Your task to perform on an android device: Clear all items from cart on costco. Search for "sony triple a" on costco, select the first entry, and add it to the cart. Image 0: 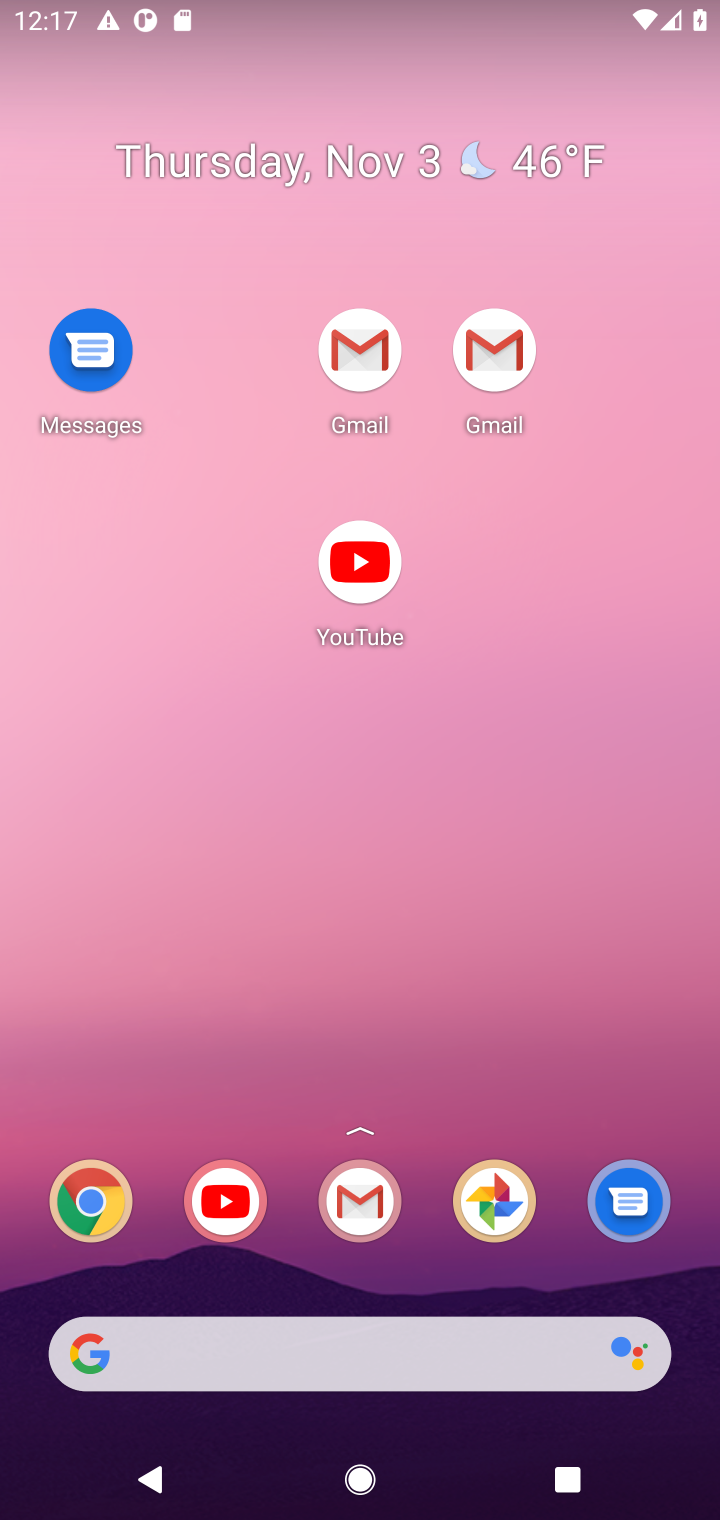
Step 0: drag from (357, 1061) to (402, 173)
Your task to perform on an android device: Clear all items from cart on costco. Search for "sony triple a" on costco, select the first entry, and add it to the cart. Image 1: 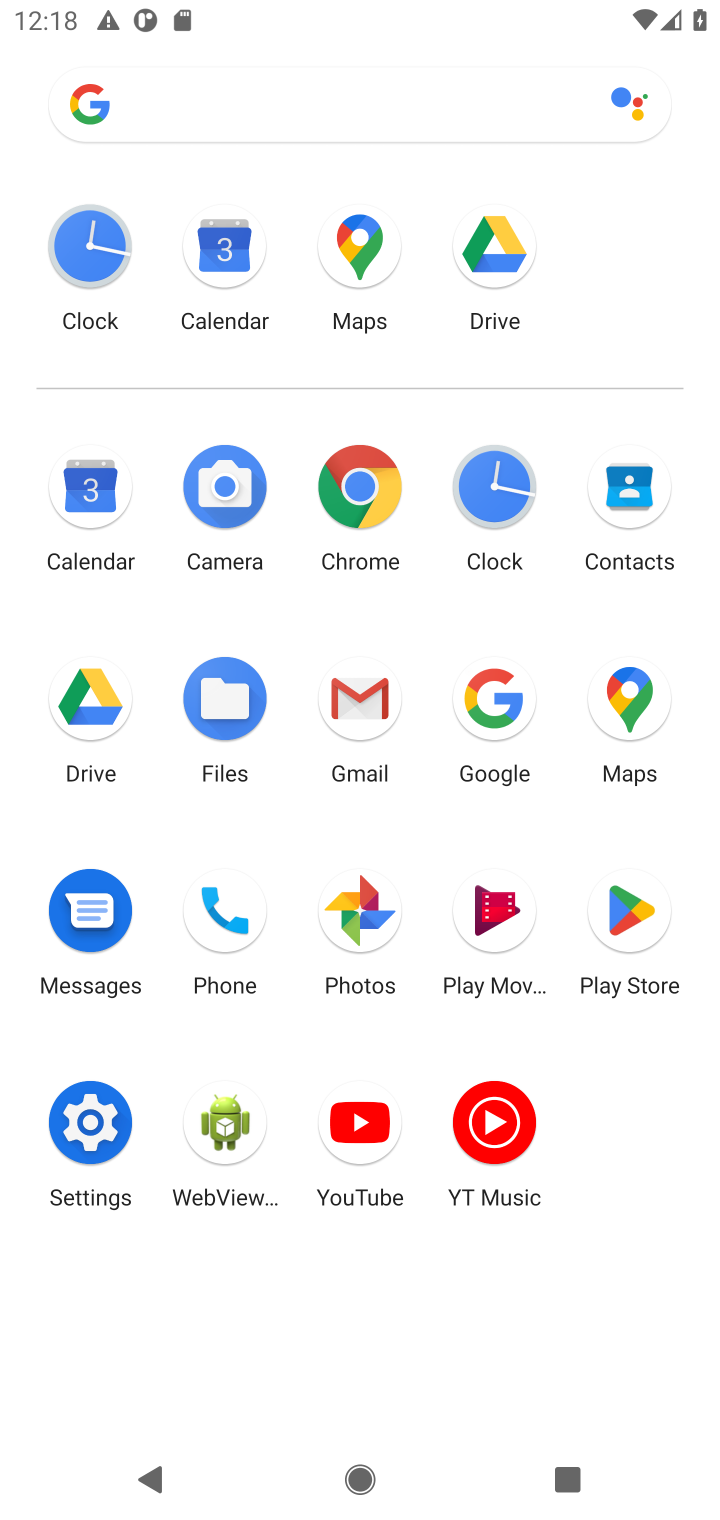
Step 1: click (365, 486)
Your task to perform on an android device: Clear all items from cart on costco. Search for "sony triple a" on costco, select the first entry, and add it to the cart. Image 2: 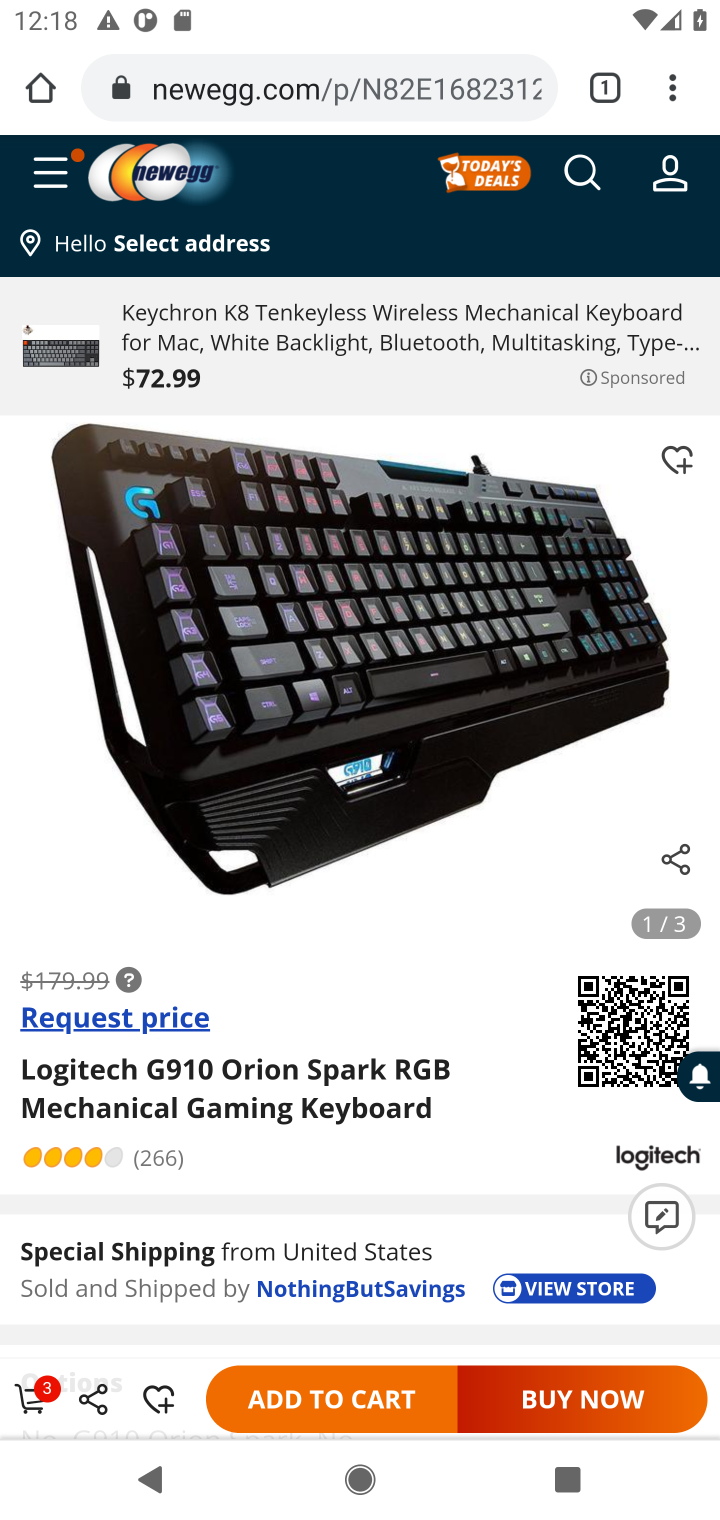
Step 2: click (375, 87)
Your task to perform on an android device: Clear all items from cart on costco. Search for "sony triple a" on costco, select the first entry, and add it to the cart. Image 3: 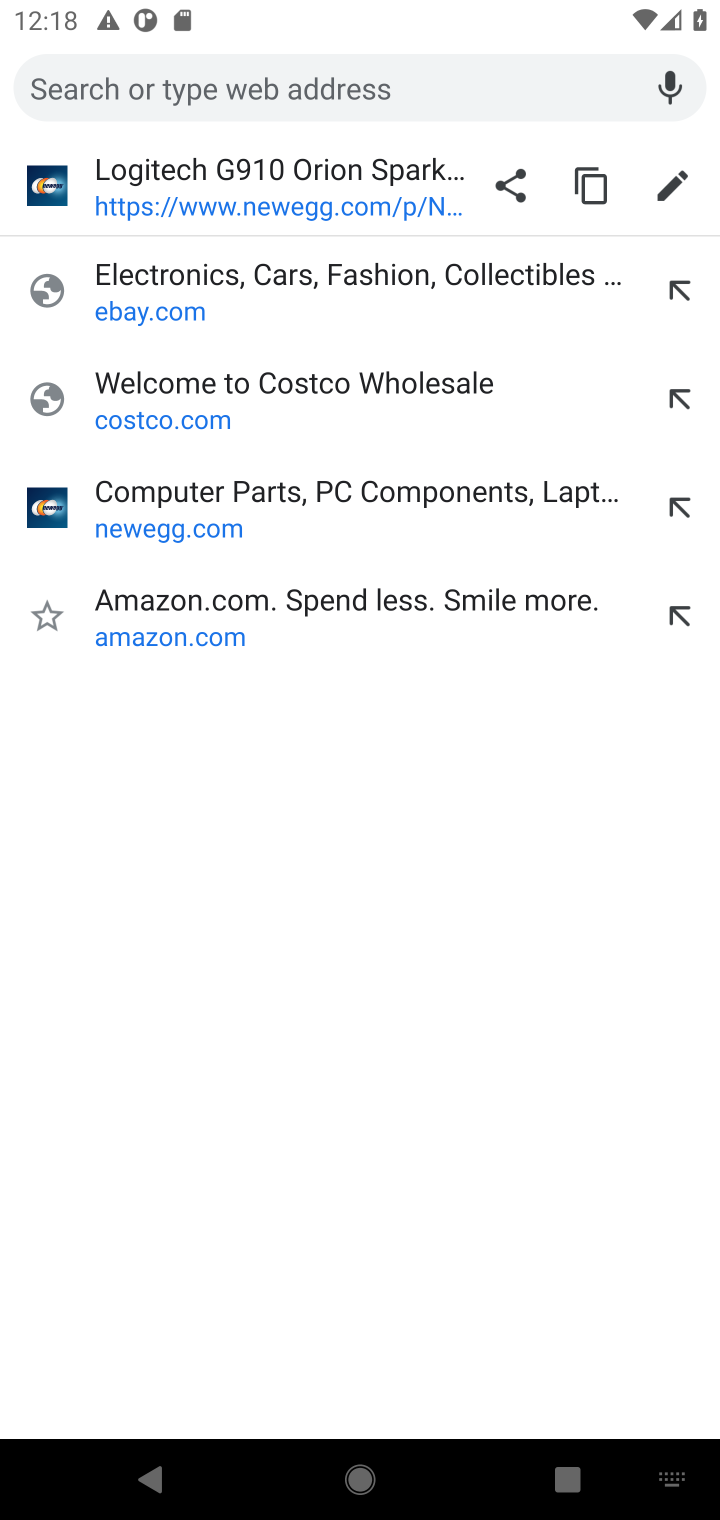
Step 3: type "costco.com"
Your task to perform on an android device: Clear all items from cart on costco. Search for "sony triple a" on costco, select the first entry, and add it to the cart. Image 4: 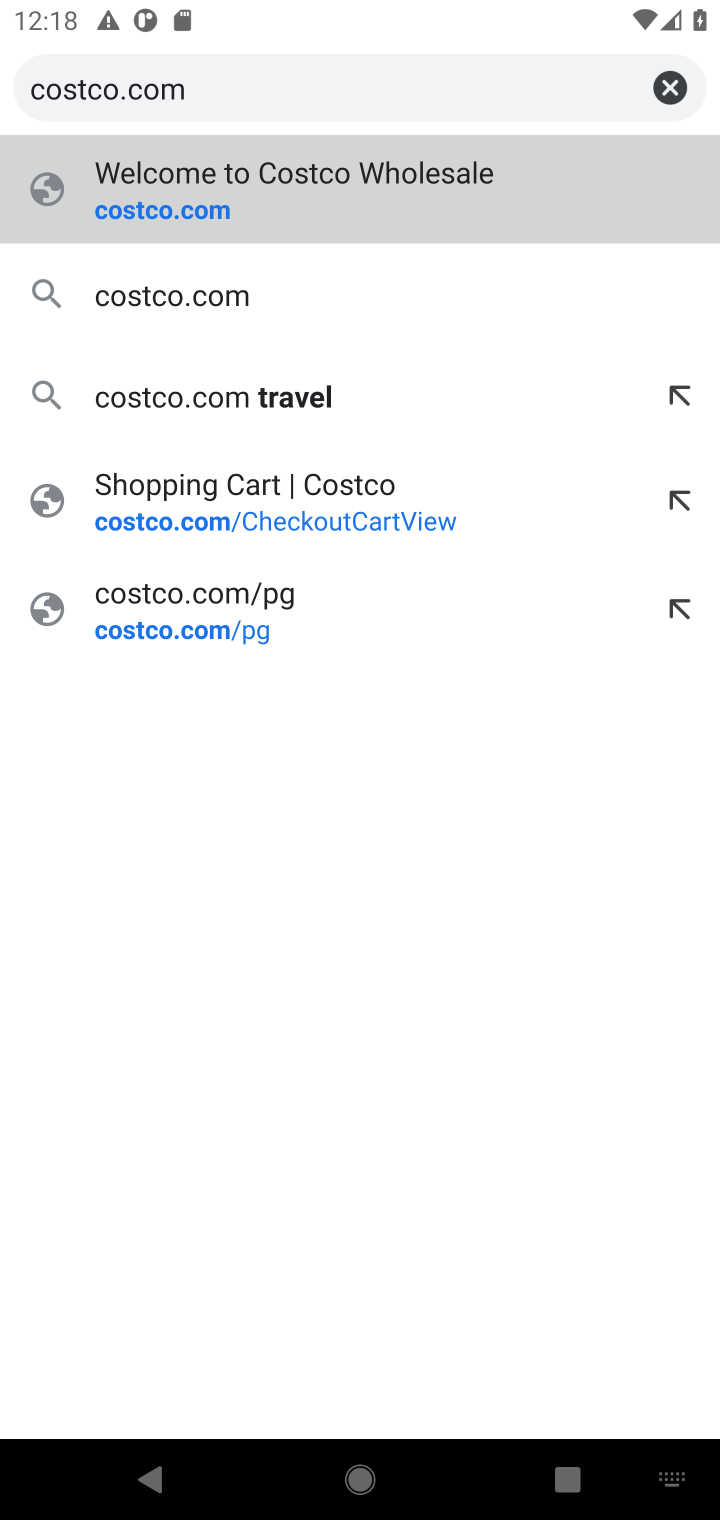
Step 4: press enter
Your task to perform on an android device: Clear all items from cart on costco. Search for "sony triple a" on costco, select the first entry, and add it to the cart. Image 5: 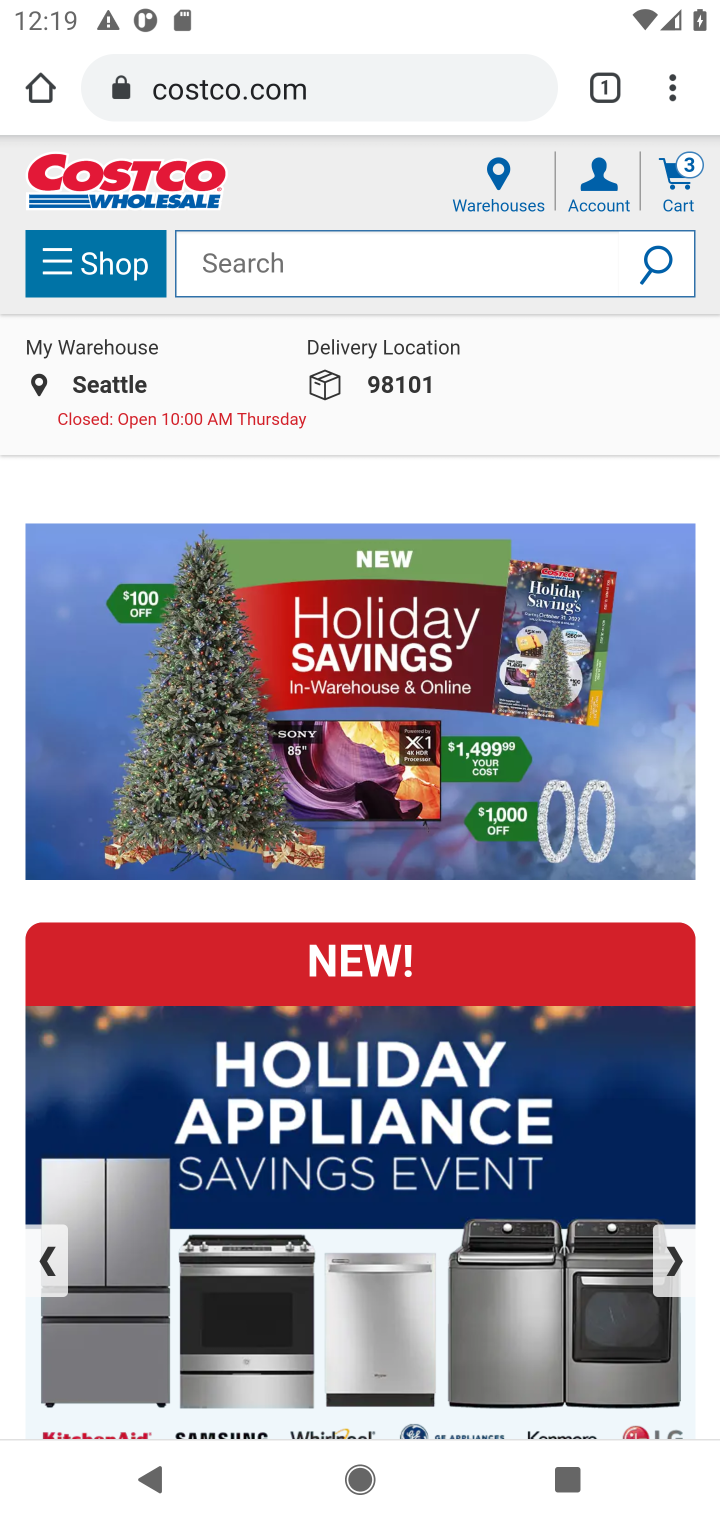
Step 5: click (677, 190)
Your task to perform on an android device: Clear all items from cart on costco. Search for "sony triple a" on costco, select the first entry, and add it to the cart. Image 6: 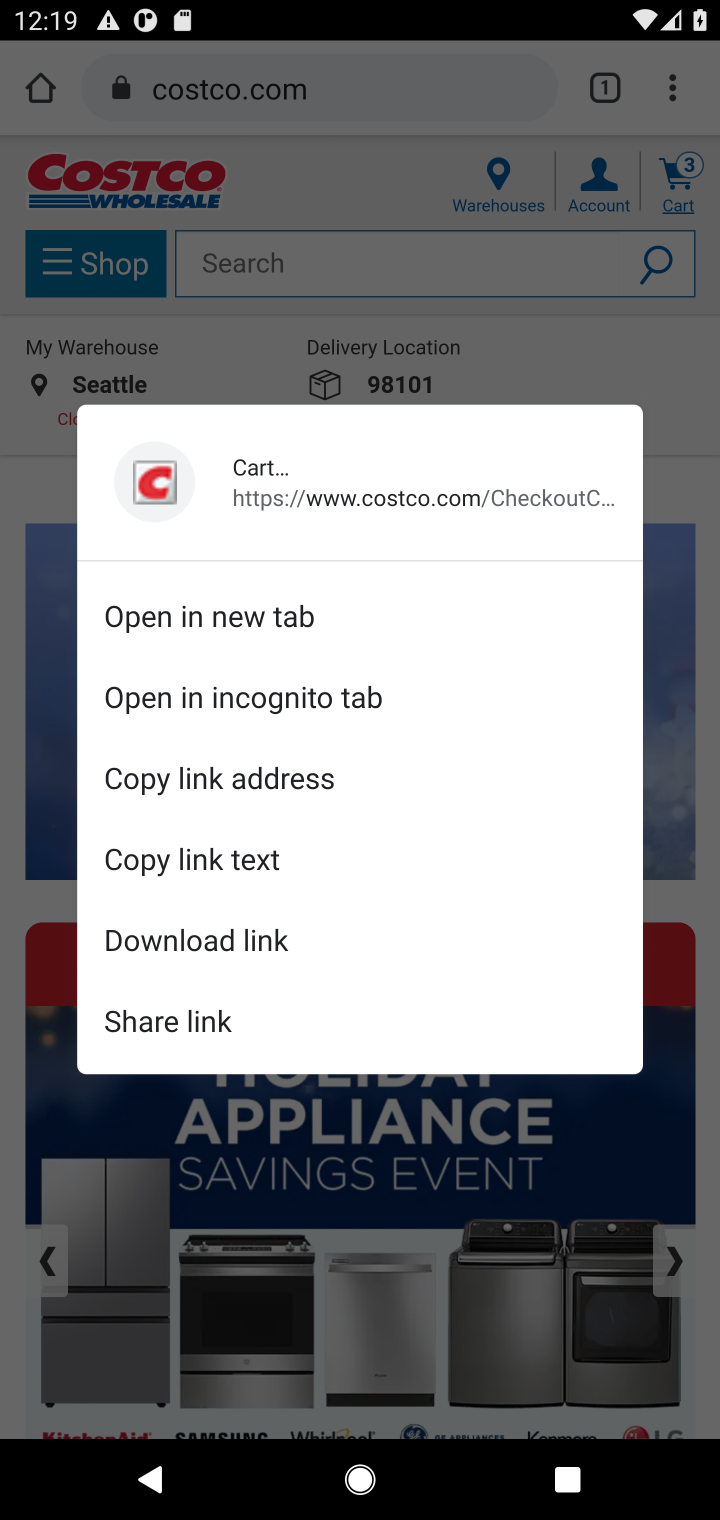
Step 6: click (667, 162)
Your task to perform on an android device: Clear all items from cart on costco. Search for "sony triple a" on costco, select the first entry, and add it to the cart. Image 7: 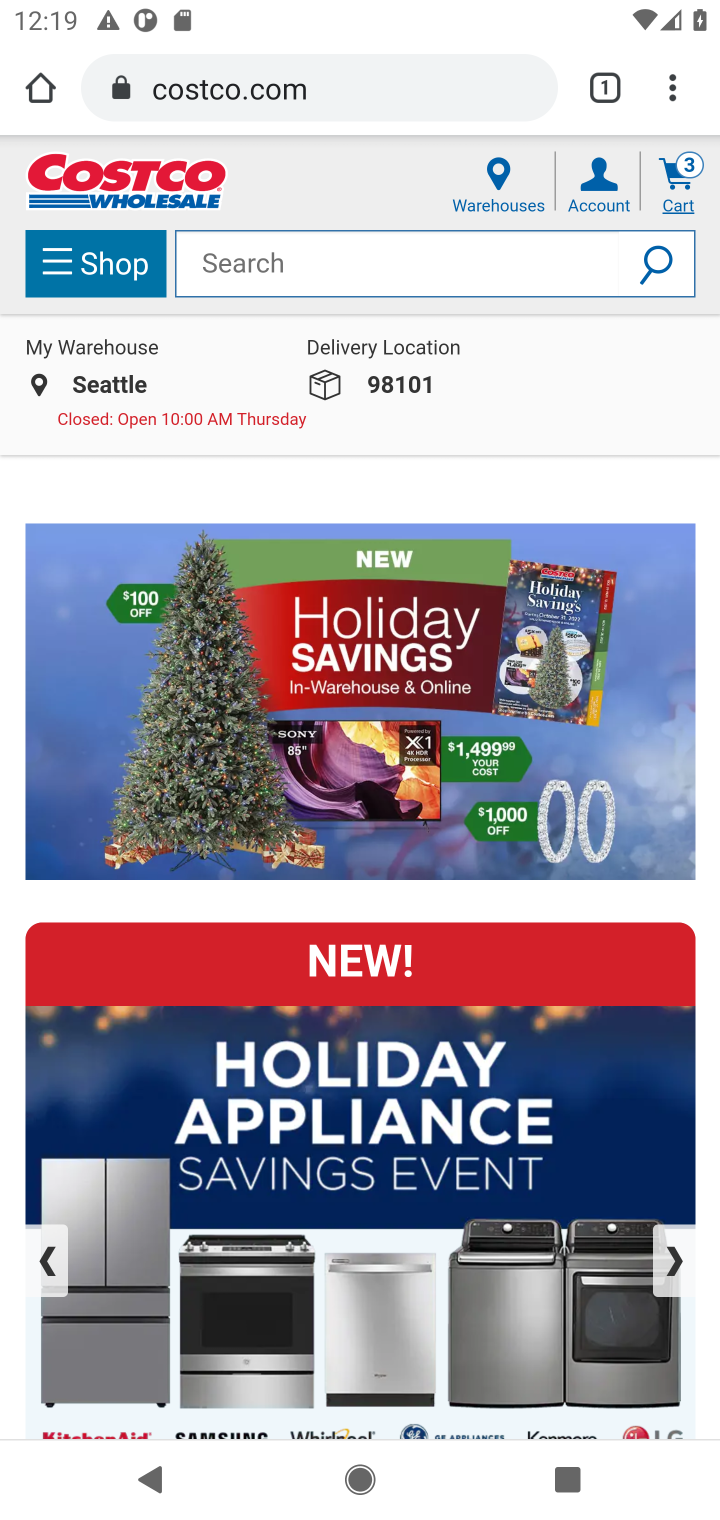
Step 7: click (665, 173)
Your task to perform on an android device: Clear all items from cart on costco. Search for "sony triple a" on costco, select the first entry, and add it to the cart. Image 8: 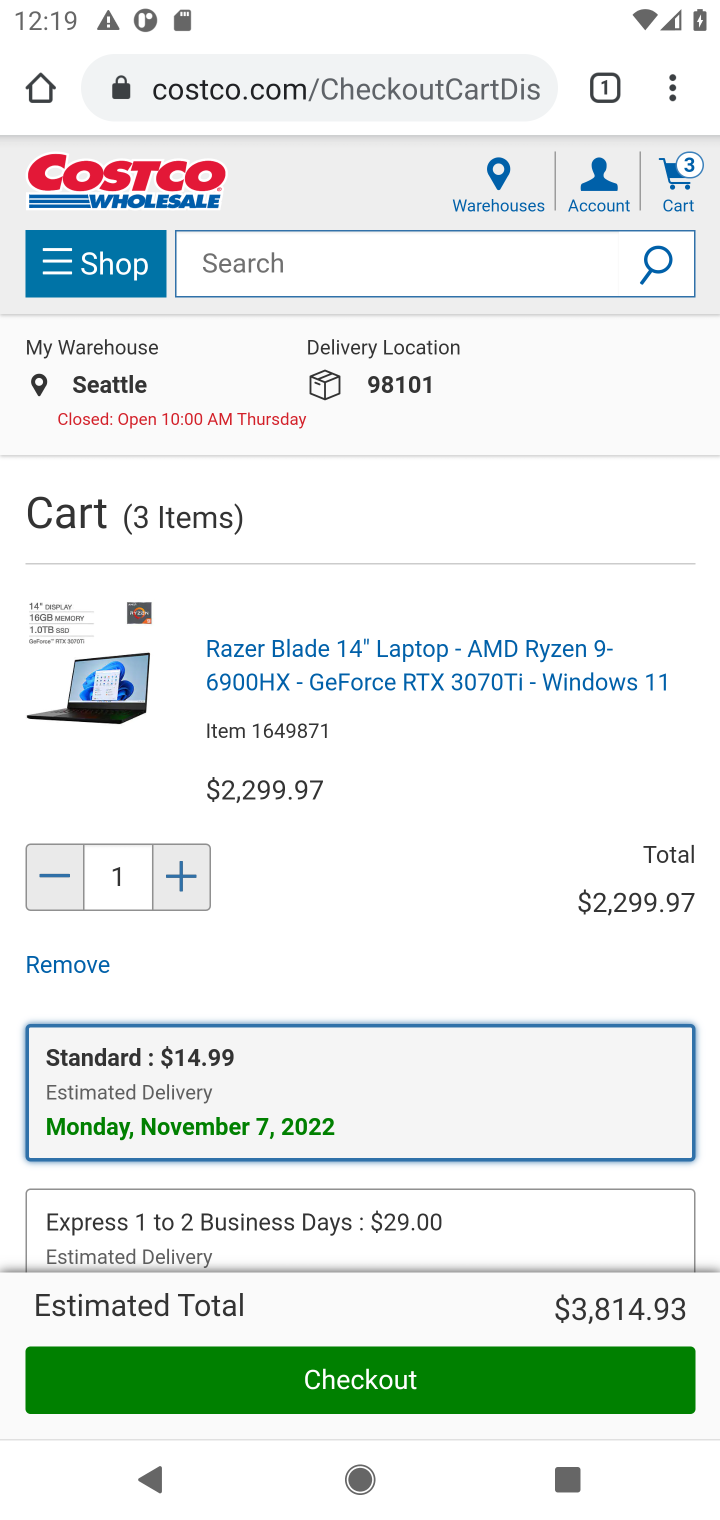
Step 8: click (45, 956)
Your task to perform on an android device: Clear all items from cart on costco. Search for "sony triple a" on costco, select the first entry, and add it to the cart. Image 9: 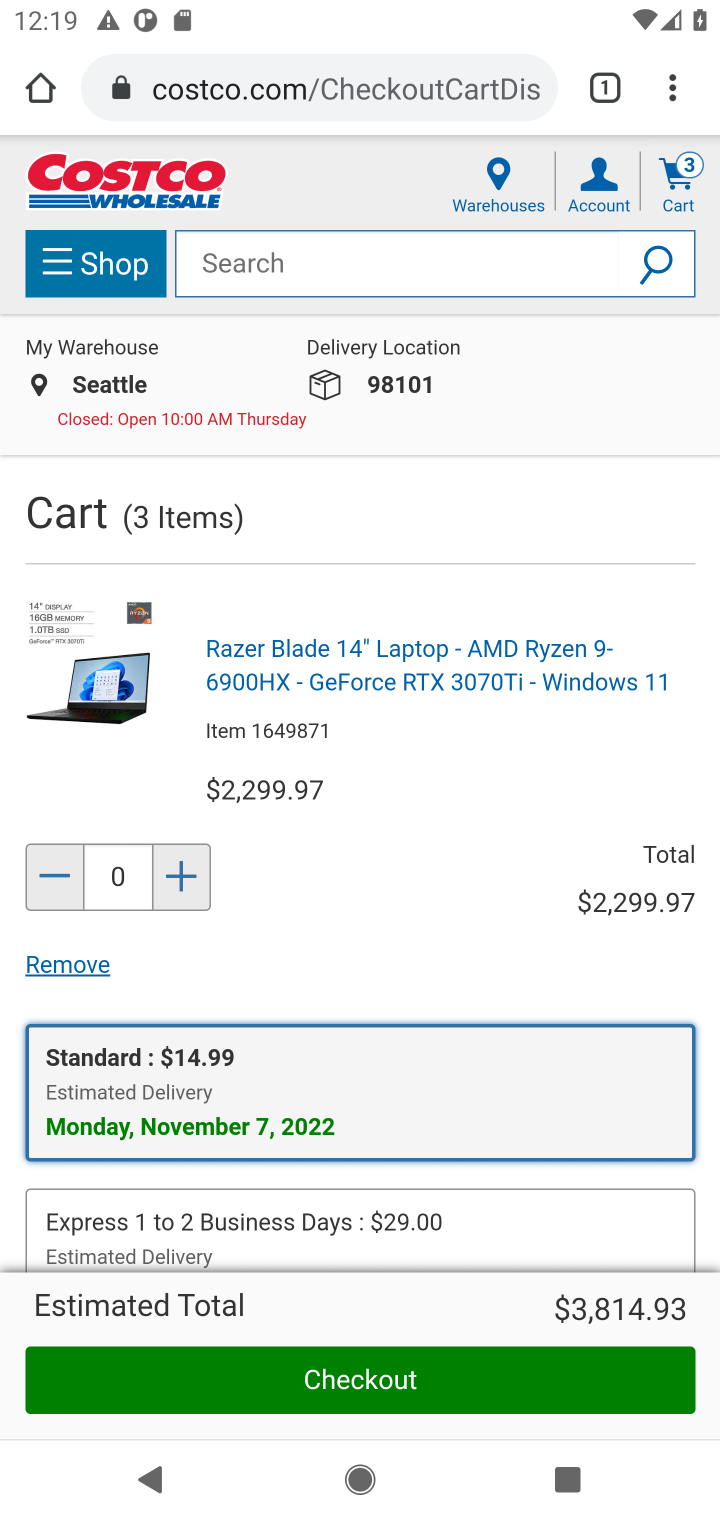
Step 9: task complete